Your task to perform on an android device: set the timer Image 0: 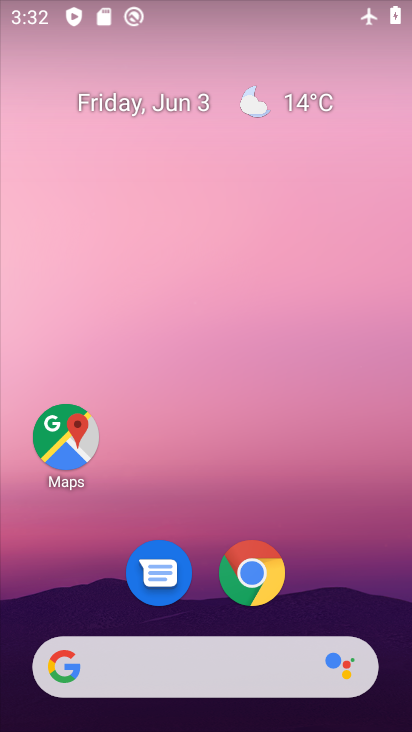
Step 0: drag from (196, 483) to (196, 141)
Your task to perform on an android device: set the timer Image 1: 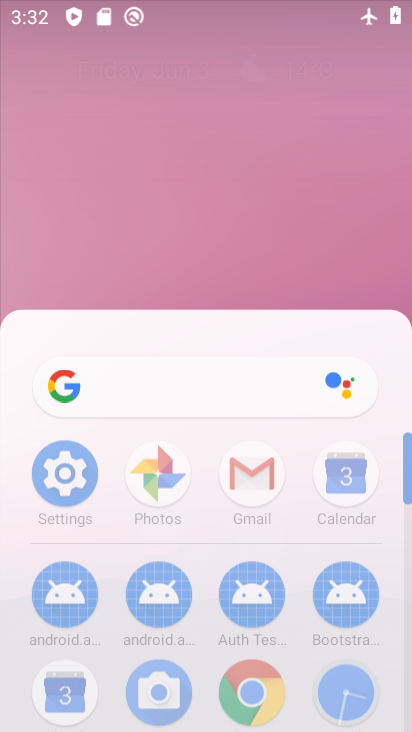
Step 1: click (196, 2)
Your task to perform on an android device: set the timer Image 2: 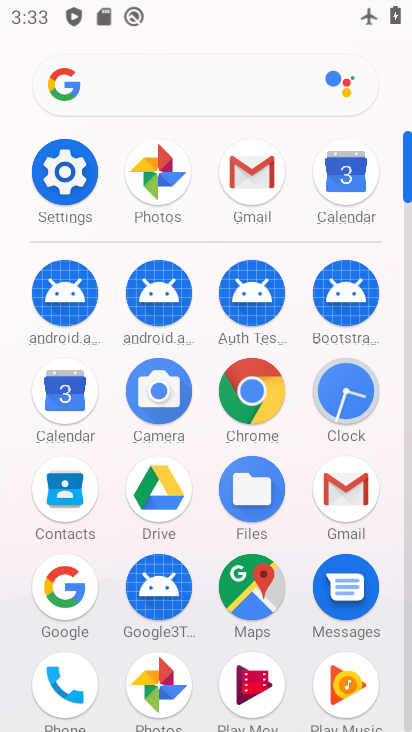
Step 2: click (338, 395)
Your task to perform on an android device: set the timer Image 3: 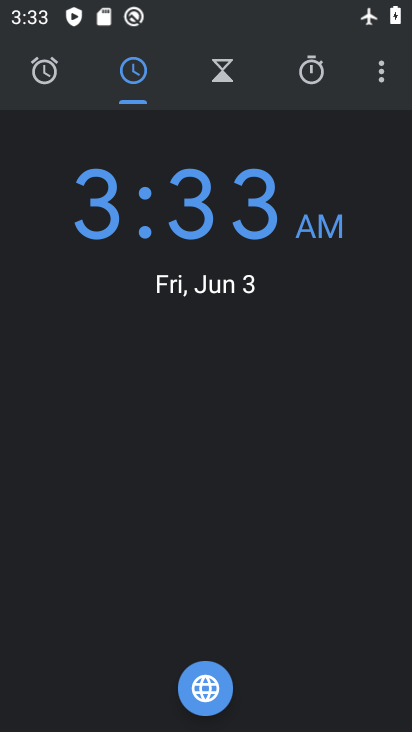
Step 3: click (231, 84)
Your task to perform on an android device: set the timer Image 4: 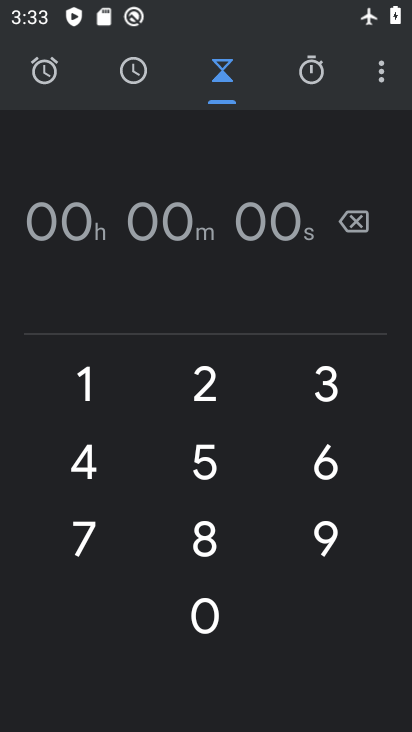
Step 4: click (211, 346)
Your task to perform on an android device: set the timer Image 5: 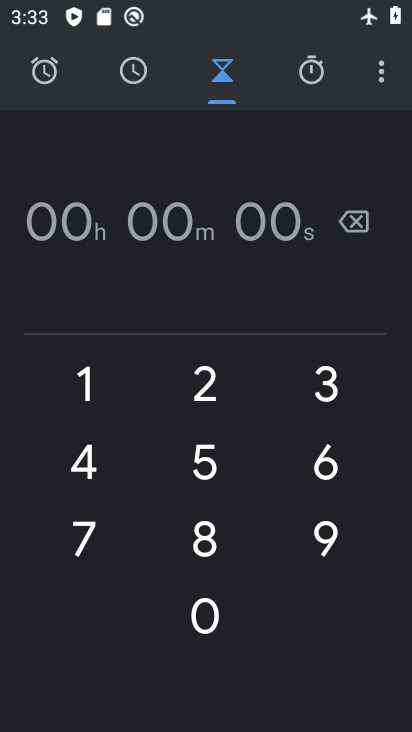
Step 5: click (206, 398)
Your task to perform on an android device: set the timer Image 6: 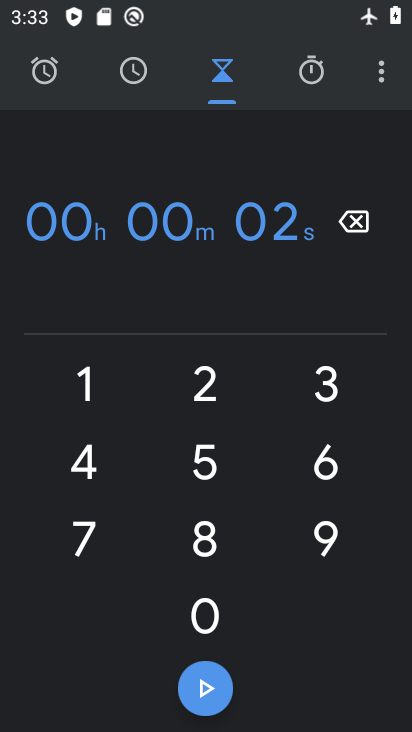
Step 6: click (205, 682)
Your task to perform on an android device: set the timer Image 7: 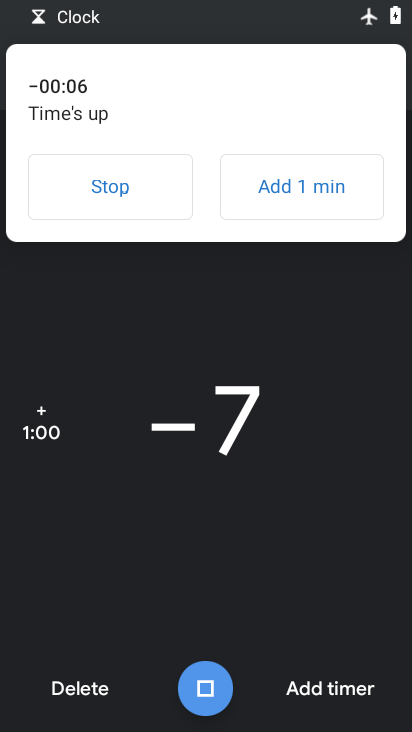
Step 7: task complete